Your task to perform on an android device: turn off airplane mode Image 0: 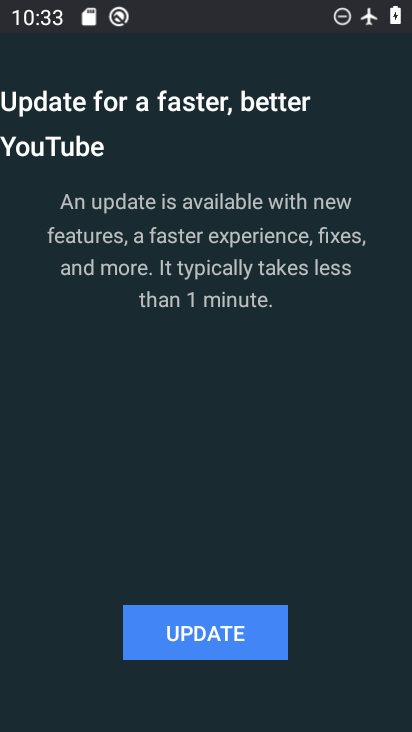
Step 0: press back button
Your task to perform on an android device: turn off airplane mode Image 1: 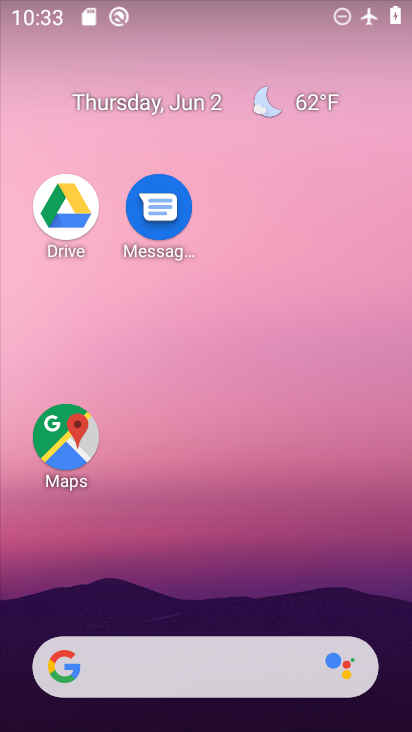
Step 1: drag from (189, 626) to (232, 40)
Your task to perform on an android device: turn off airplane mode Image 2: 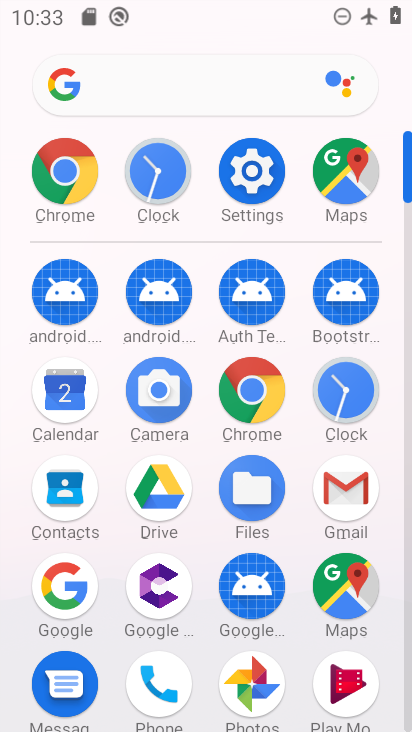
Step 2: click (242, 178)
Your task to perform on an android device: turn off airplane mode Image 3: 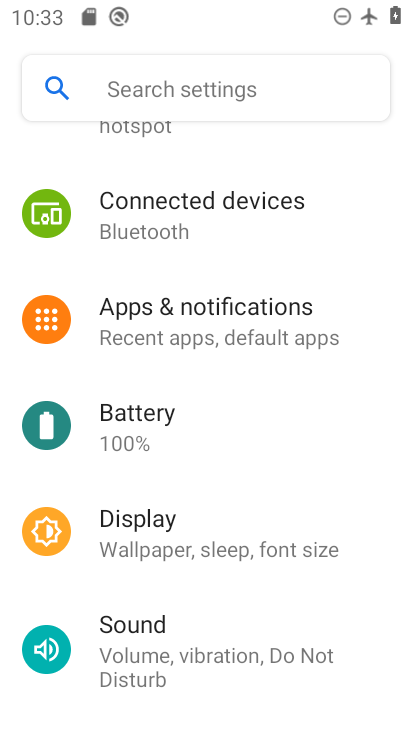
Step 3: drag from (197, 217) to (125, 661)
Your task to perform on an android device: turn off airplane mode Image 4: 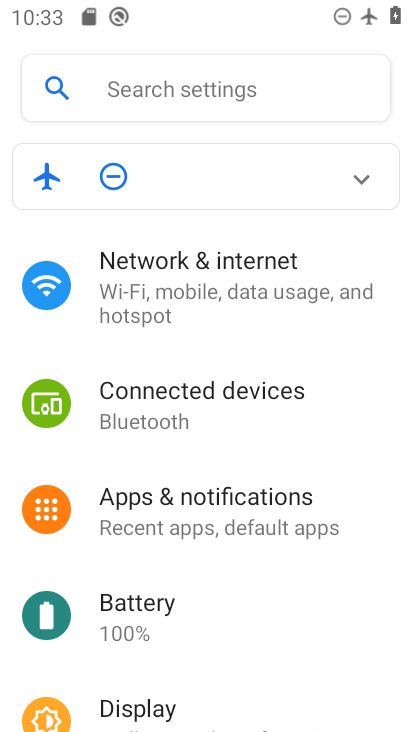
Step 4: click (184, 299)
Your task to perform on an android device: turn off airplane mode Image 5: 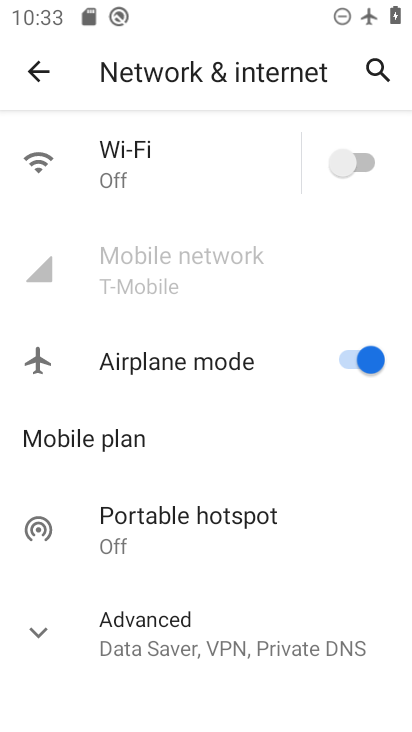
Step 5: click (344, 359)
Your task to perform on an android device: turn off airplane mode Image 6: 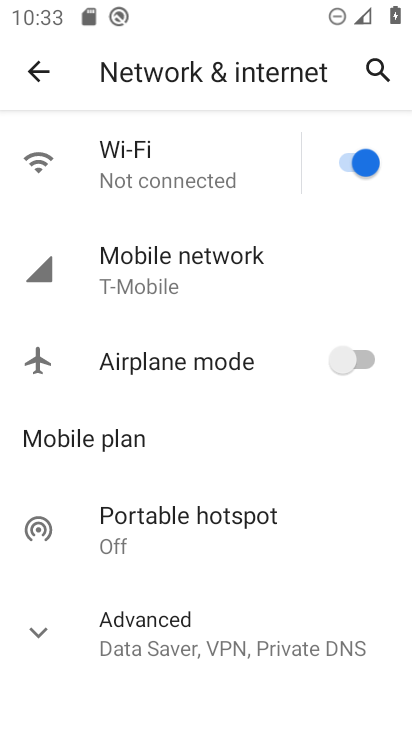
Step 6: task complete